Your task to perform on an android device: Open Youtube and go to the subscriptions tab Image 0: 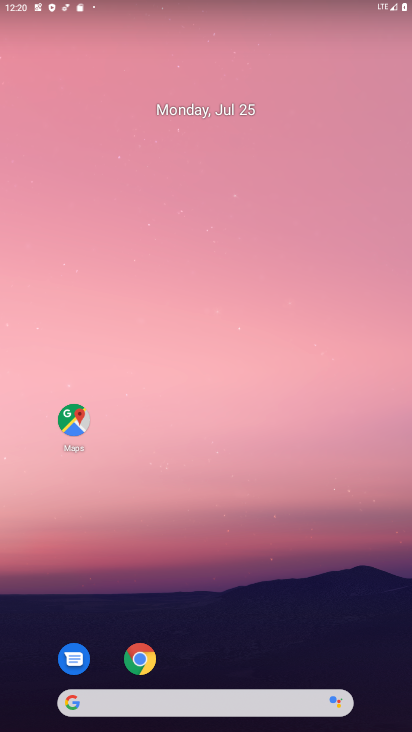
Step 0: drag from (42, 679) to (409, 11)
Your task to perform on an android device: Open Youtube and go to the subscriptions tab Image 1: 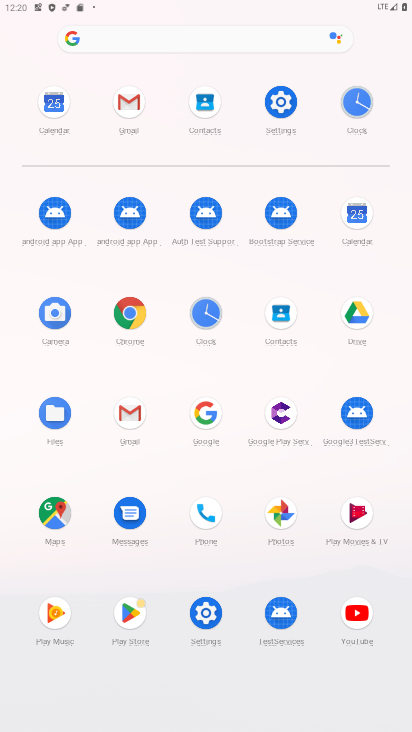
Step 1: click (361, 615)
Your task to perform on an android device: Open Youtube and go to the subscriptions tab Image 2: 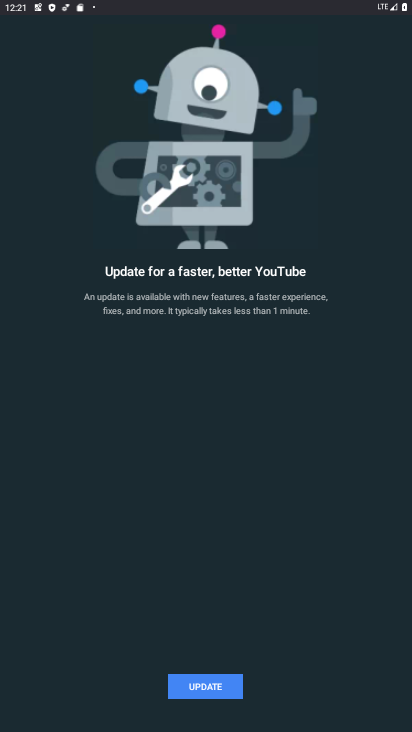
Step 2: click (201, 683)
Your task to perform on an android device: Open Youtube and go to the subscriptions tab Image 3: 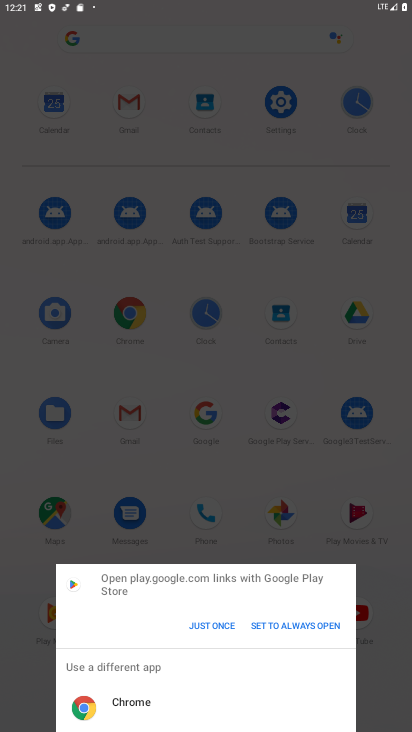
Step 3: click (222, 627)
Your task to perform on an android device: Open Youtube and go to the subscriptions tab Image 4: 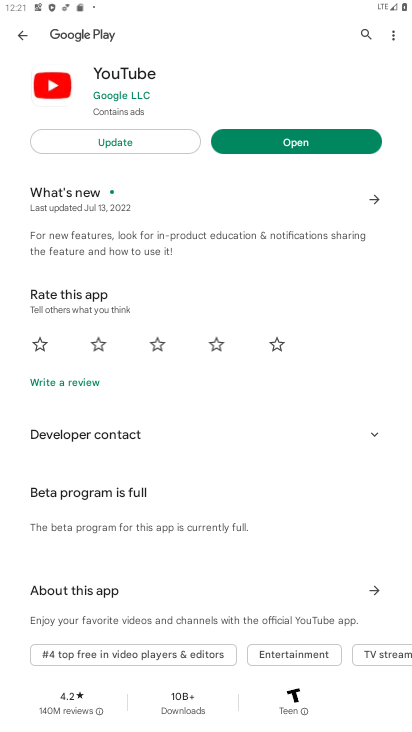
Step 4: click (285, 133)
Your task to perform on an android device: Open Youtube and go to the subscriptions tab Image 5: 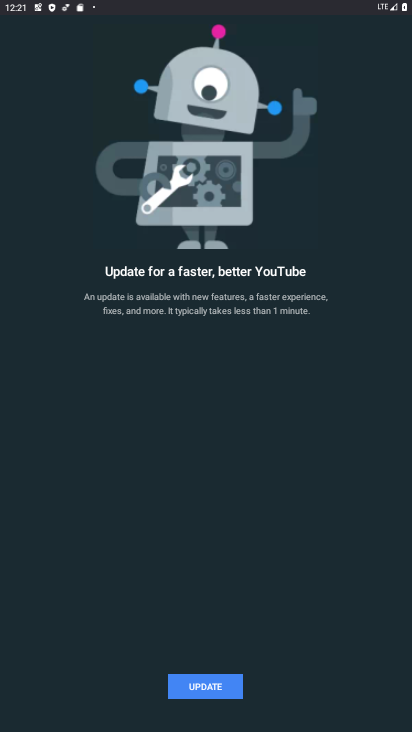
Step 5: task complete